Your task to perform on an android device: Show me popular games on the Play Store Image 0: 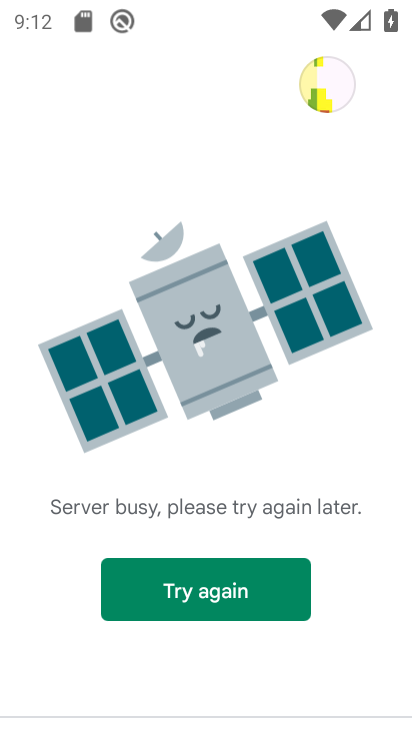
Step 0: press home button
Your task to perform on an android device: Show me popular games on the Play Store Image 1: 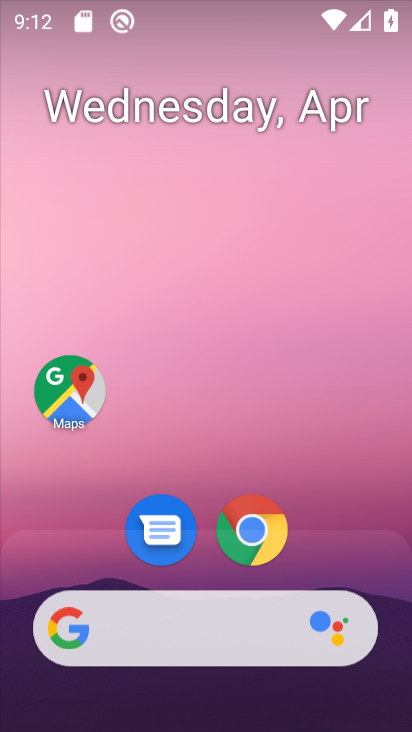
Step 1: drag from (328, 540) to (390, 40)
Your task to perform on an android device: Show me popular games on the Play Store Image 2: 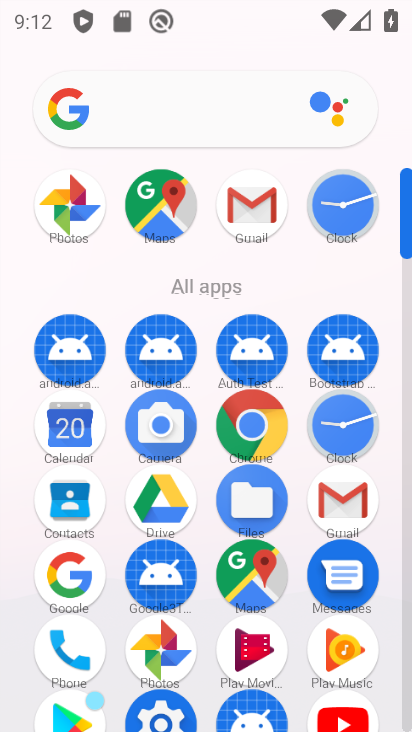
Step 2: drag from (388, 704) to (390, 260)
Your task to perform on an android device: Show me popular games on the Play Store Image 3: 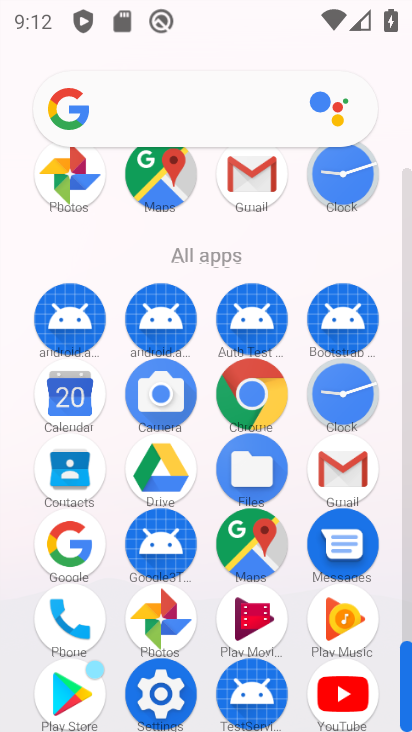
Step 3: drag from (108, 583) to (115, 358)
Your task to perform on an android device: Show me popular games on the Play Store Image 4: 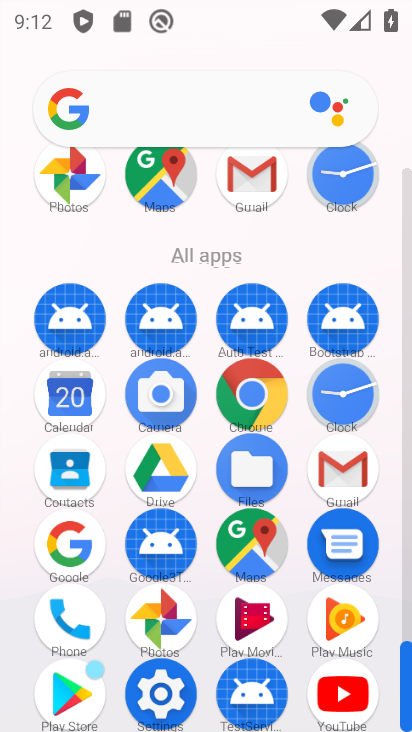
Step 4: click (75, 683)
Your task to perform on an android device: Show me popular games on the Play Store Image 5: 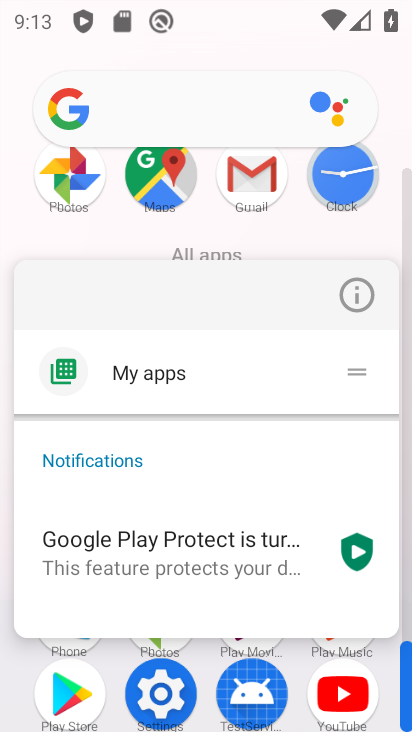
Step 5: click (86, 701)
Your task to perform on an android device: Show me popular games on the Play Store Image 6: 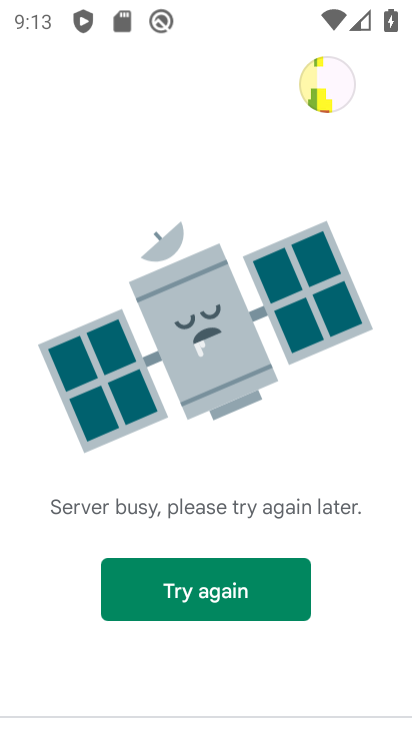
Step 6: task complete